Your task to perform on an android device: check data usage Image 0: 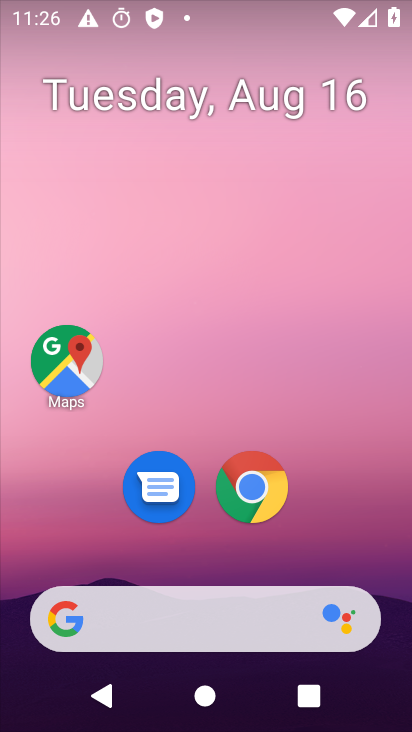
Step 0: drag from (351, 17) to (327, 562)
Your task to perform on an android device: check data usage Image 1: 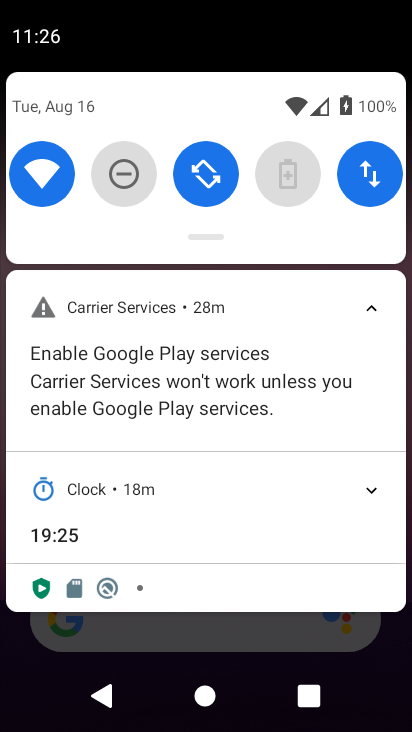
Step 1: click (363, 191)
Your task to perform on an android device: check data usage Image 2: 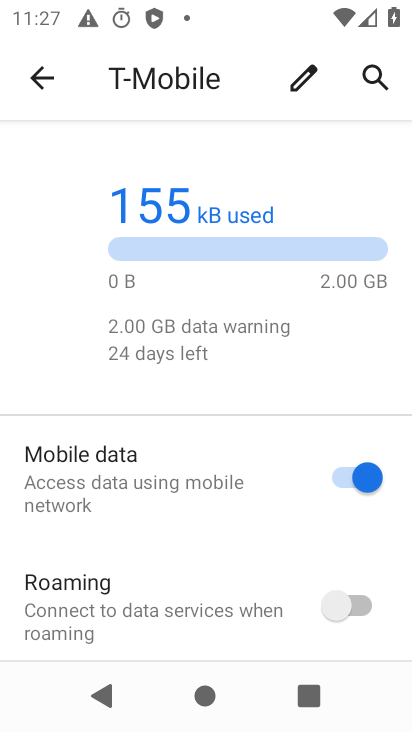
Step 2: task complete